Your task to perform on an android device: check google app version Image 0: 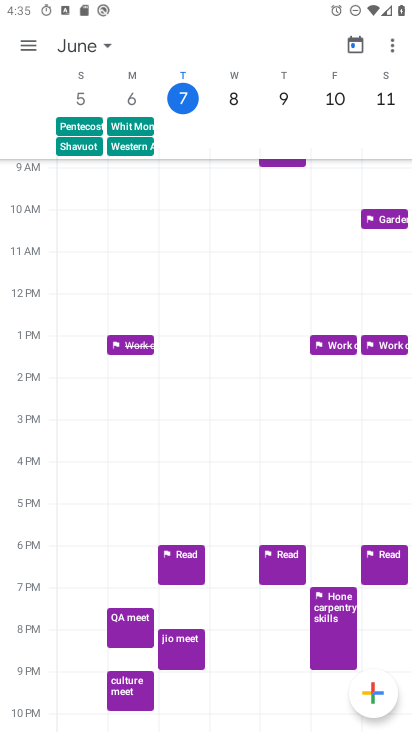
Step 0: press home button
Your task to perform on an android device: check google app version Image 1: 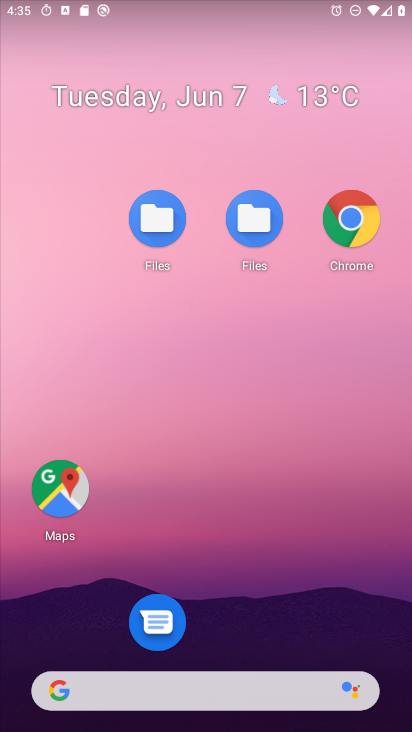
Step 1: drag from (270, 656) to (252, 151)
Your task to perform on an android device: check google app version Image 2: 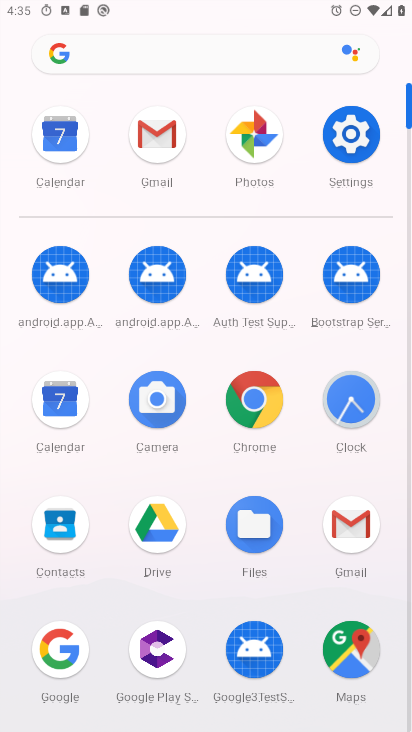
Step 2: click (55, 637)
Your task to perform on an android device: check google app version Image 3: 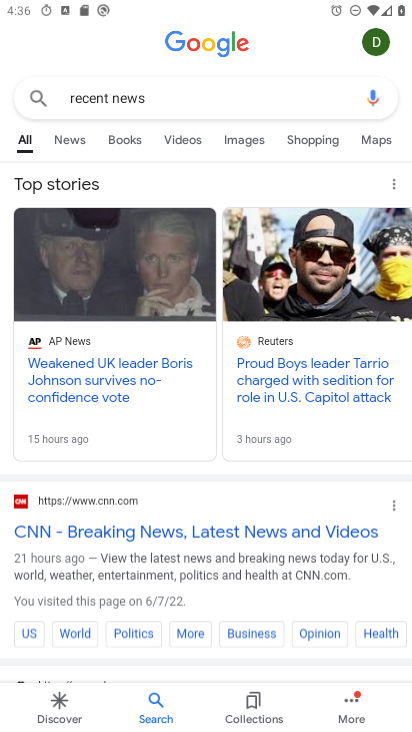
Step 3: click (188, 35)
Your task to perform on an android device: check google app version Image 4: 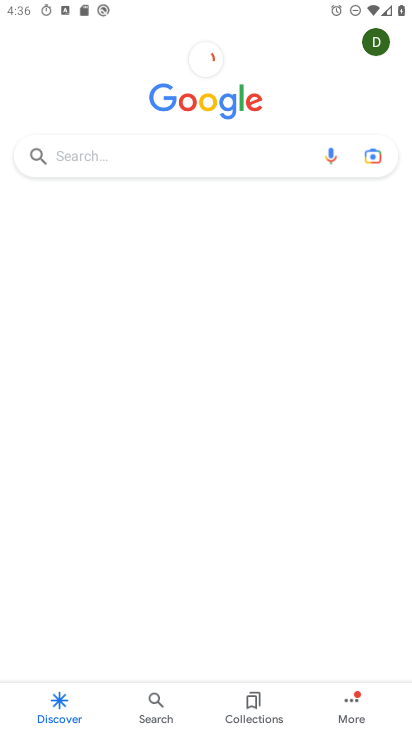
Step 4: click (370, 43)
Your task to perform on an android device: check google app version Image 5: 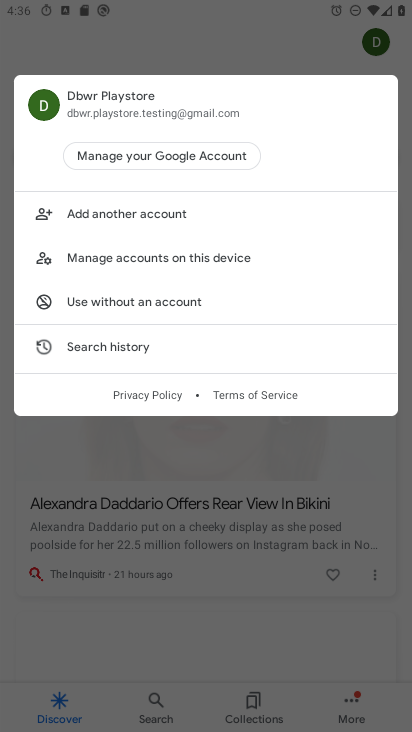
Step 5: click (319, 38)
Your task to perform on an android device: check google app version Image 6: 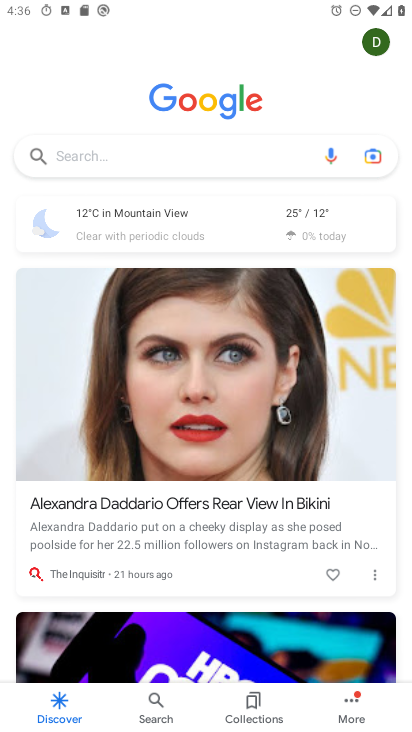
Step 6: click (208, 103)
Your task to perform on an android device: check google app version Image 7: 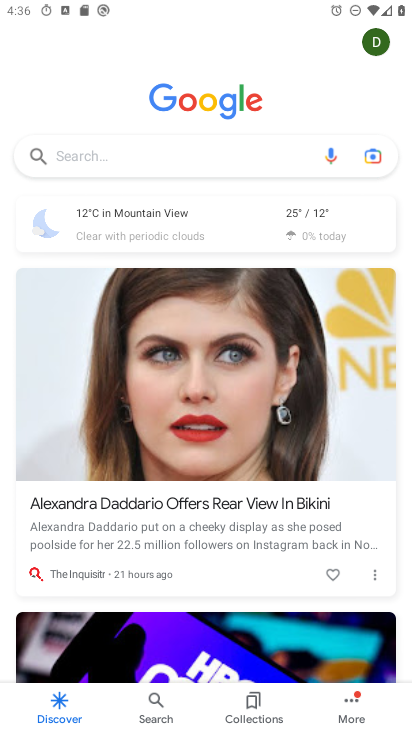
Step 7: click (356, 708)
Your task to perform on an android device: check google app version Image 8: 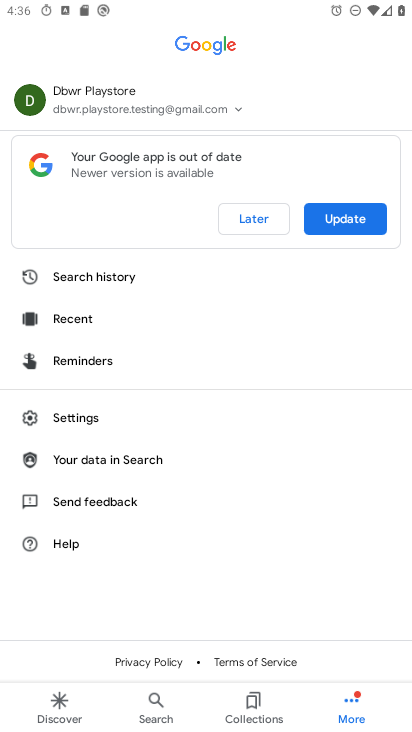
Step 8: click (94, 416)
Your task to perform on an android device: check google app version Image 9: 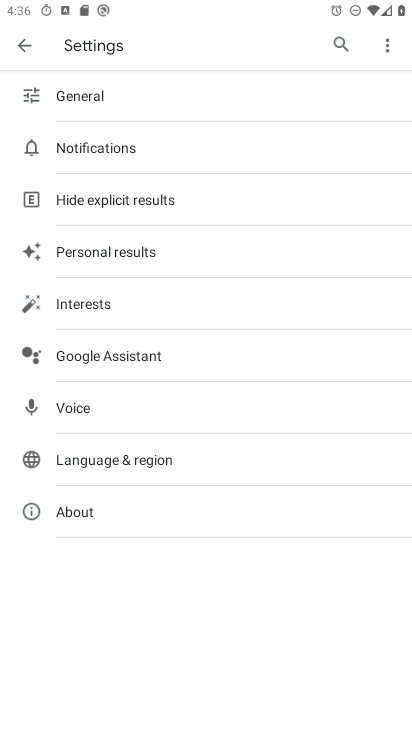
Step 9: click (87, 517)
Your task to perform on an android device: check google app version Image 10: 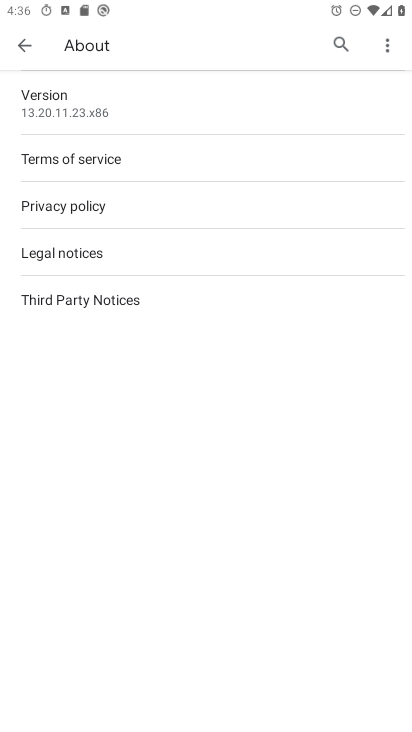
Step 10: click (375, 117)
Your task to perform on an android device: check google app version Image 11: 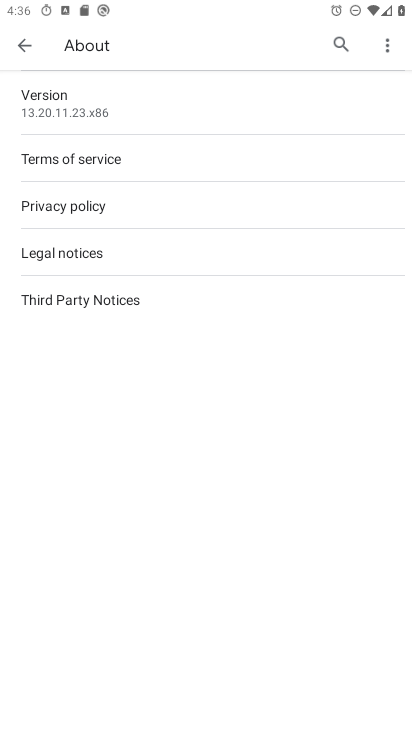
Step 11: task complete